Your task to perform on an android device: Open calendar and show me the fourth week of next month Image 0: 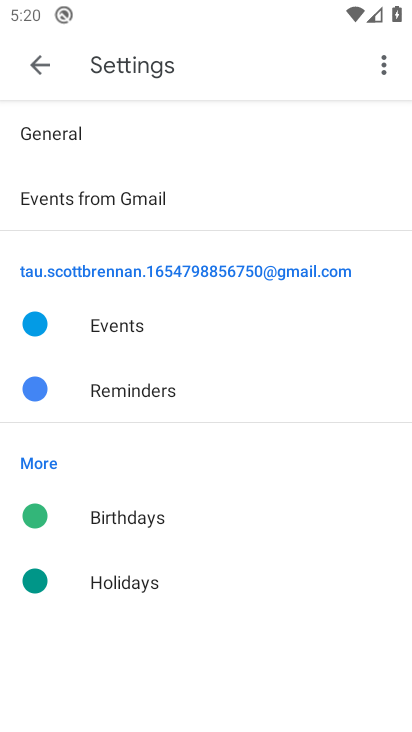
Step 0: drag from (238, 639) to (268, 16)
Your task to perform on an android device: Open calendar and show me the fourth week of next month Image 1: 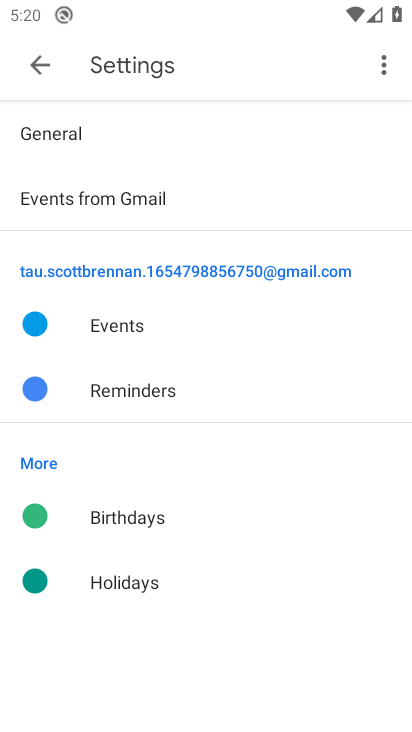
Step 1: press back button
Your task to perform on an android device: Open calendar and show me the fourth week of next month Image 2: 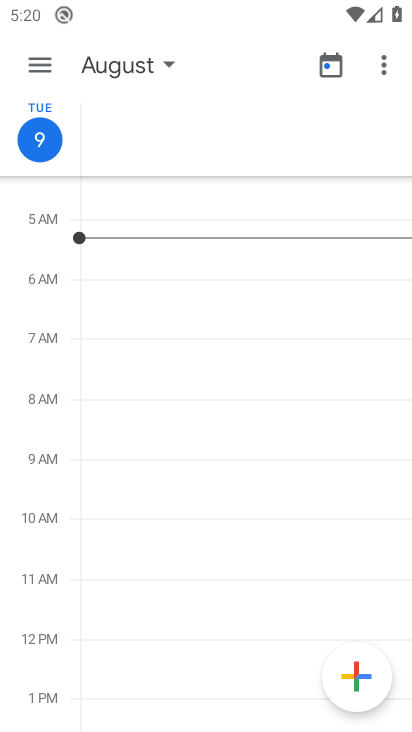
Step 2: click (167, 66)
Your task to perform on an android device: Open calendar and show me the fourth week of next month Image 3: 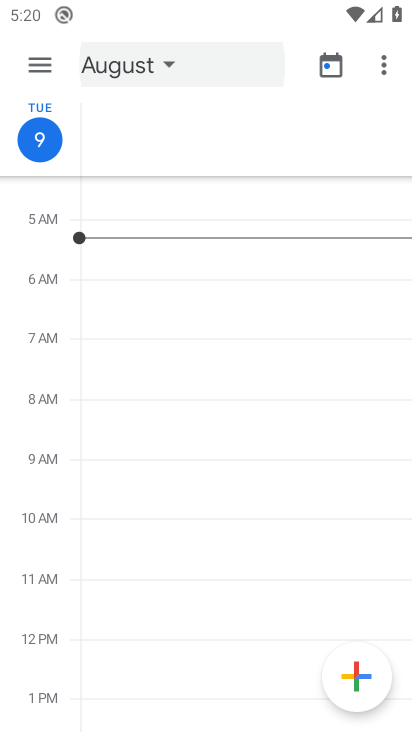
Step 3: click (167, 66)
Your task to perform on an android device: Open calendar and show me the fourth week of next month Image 4: 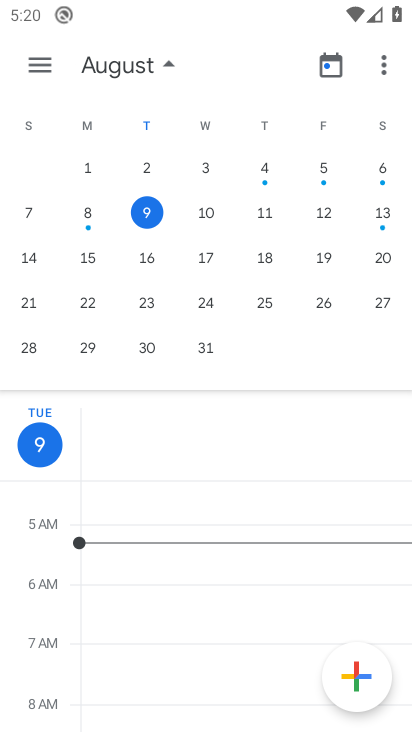
Step 4: drag from (337, 232) to (92, 206)
Your task to perform on an android device: Open calendar and show me the fourth week of next month Image 5: 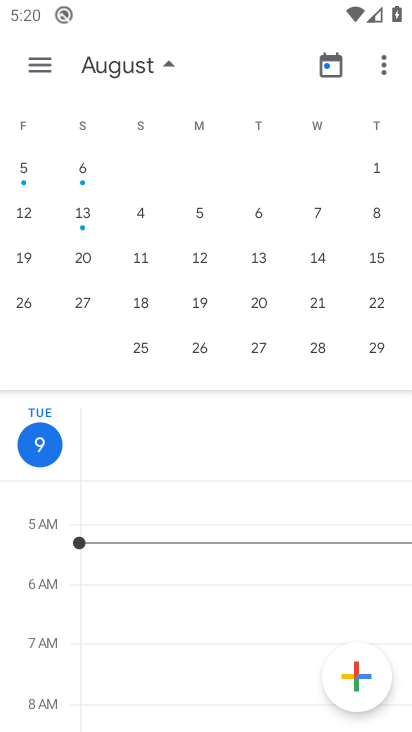
Step 5: drag from (350, 204) to (70, 233)
Your task to perform on an android device: Open calendar and show me the fourth week of next month Image 6: 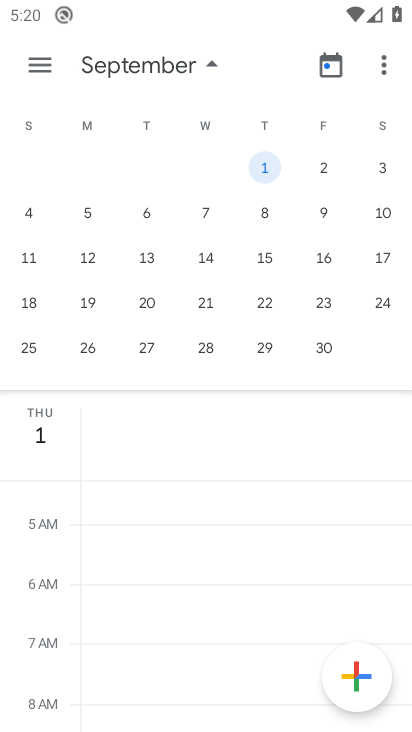
Step 6: click (255, 297)
Your task to perform on an android device: Open calendar and show me the fourth week of next month Image 7: 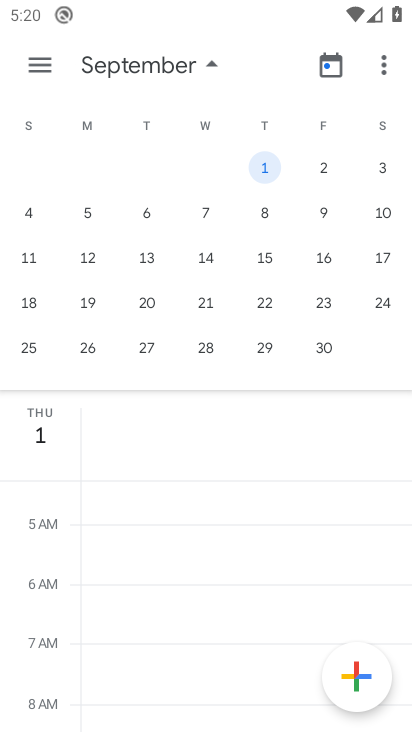
Step 7: click (256, 298)
Your task to perform on an android device: Open calendar and show me the fourth week of next month Image 8: 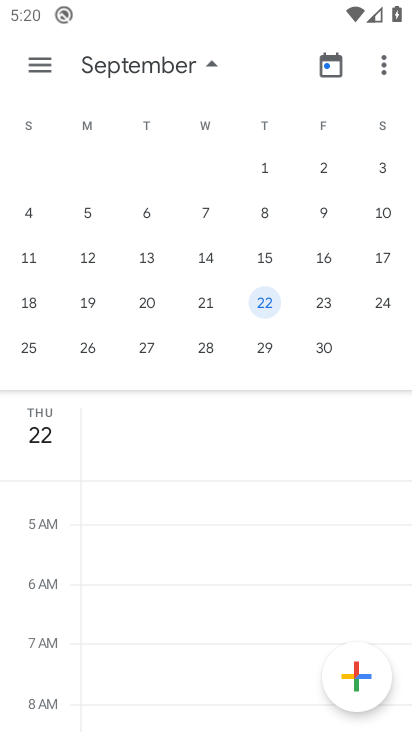
Step 8: click (258, 299)
Your task to perform on an android device: Open calendar and show me the fourth week of next month Image 9: 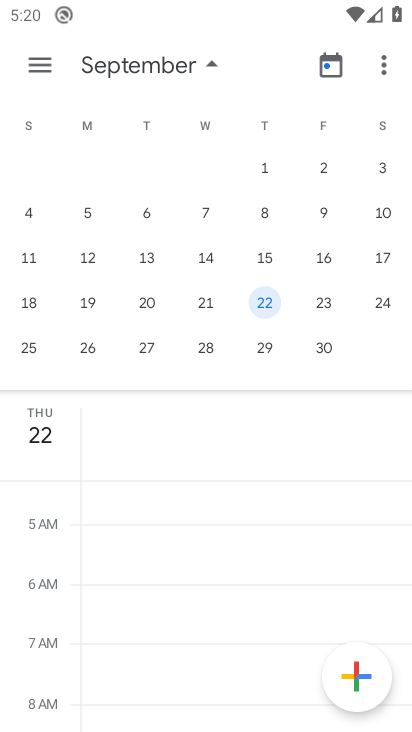
Step 9: click (258, 299)
Your task to perform on an android device: Open calendar and show me the fourth week of next month Image 10: 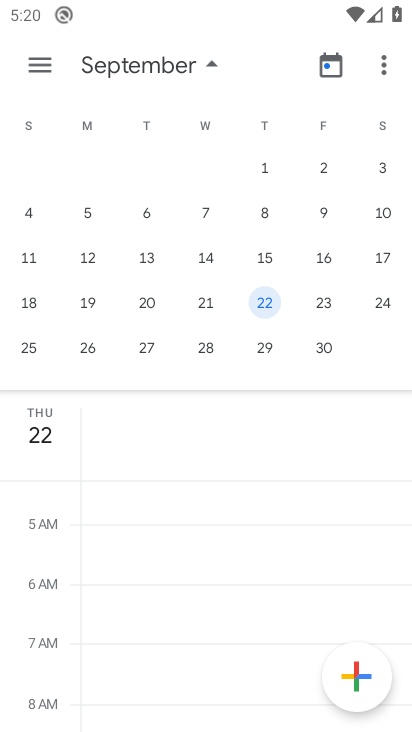
Step 10: task complete